Your task to perform on an android device: turn on showing notifications on the lock screen Image 0: 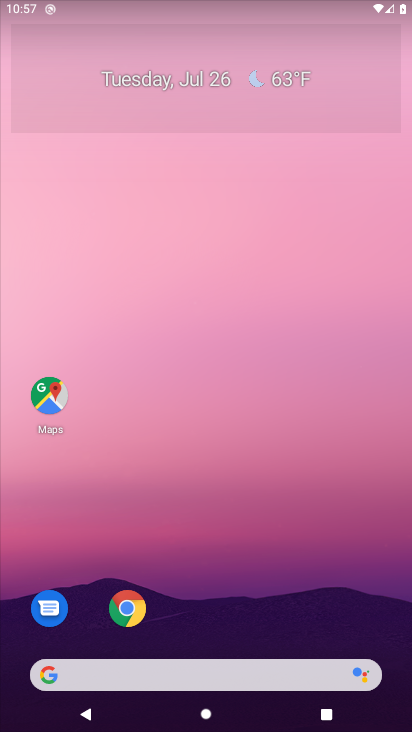
Step 0: press home button
Your task to perform on an android device: turn on showing notifications on the lock screen Image 1: 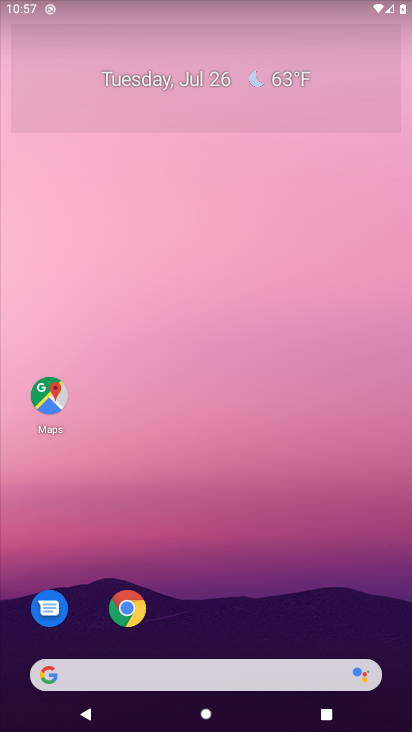
Step 1: drag from (258, 631) to (202, 162)
Your task to perform on an android device: turn on showing notifications on the lock screen Image 2: 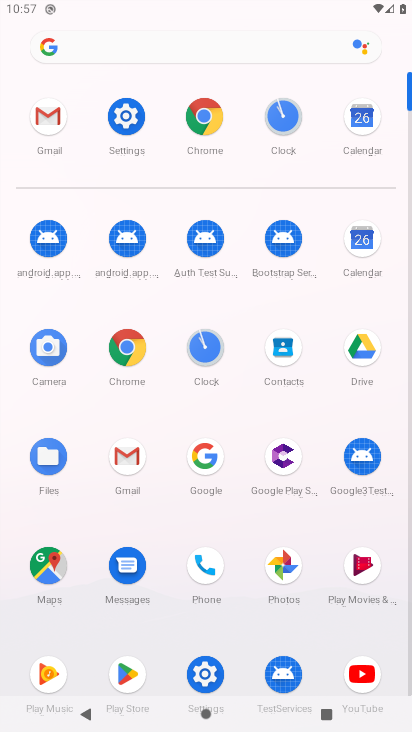
Step 2: click (130, 121)
Your task to perform on an android device: turn on showing notifications on the lock screen Image 3: 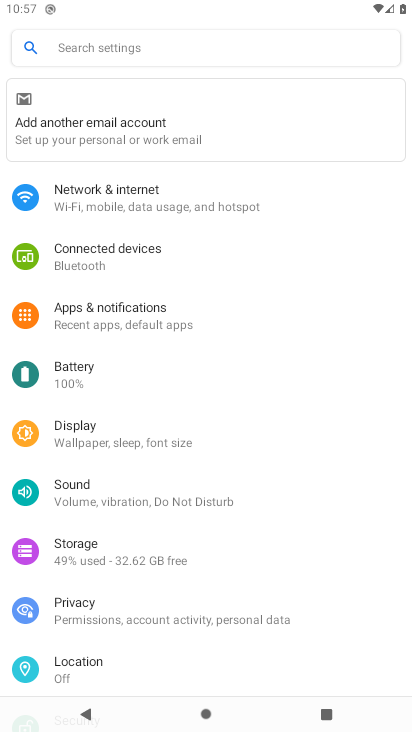
Step 3: click (114, 319)
Your task to perform on an android device: turn on showing notifications on the lock screen Image 4: 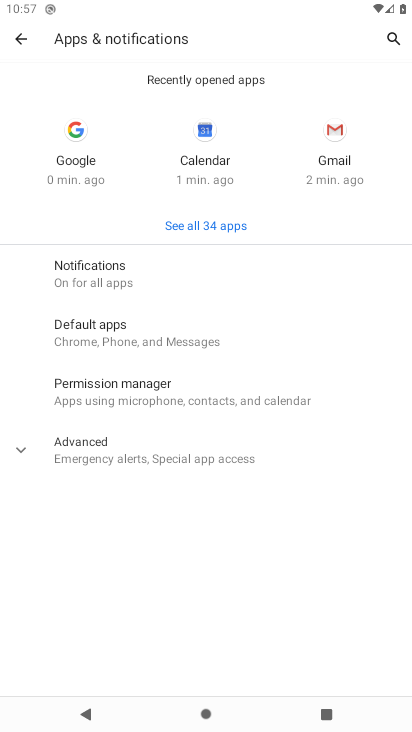
Step 4: click (91, 264)
Your task to perform on an android device: turn on showing notifications on the lock screen Image 5: 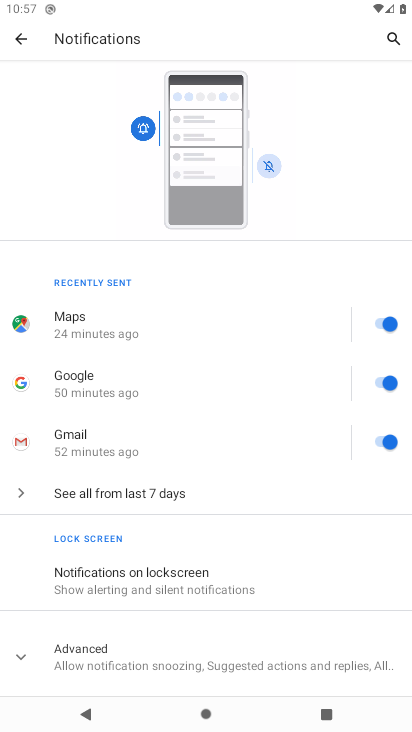
Step 5: click (151, 585)
Your task to perform on an android device: turn on showing notifications on the lock screen Image 6: 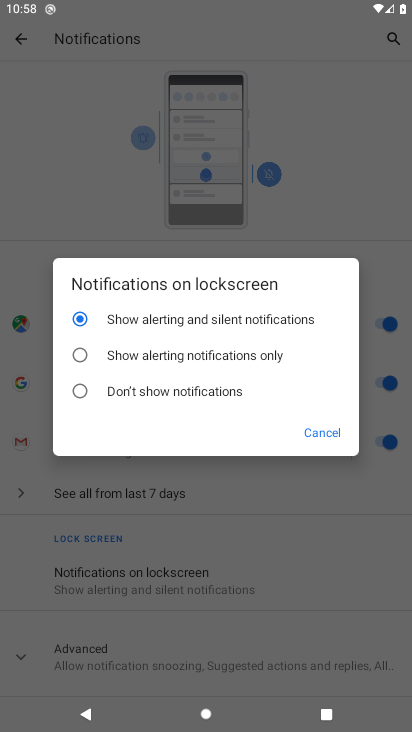
Step 6: task complete